Your task to perform on an android device: Open calendar and show me the fourth week of next month Image 0: 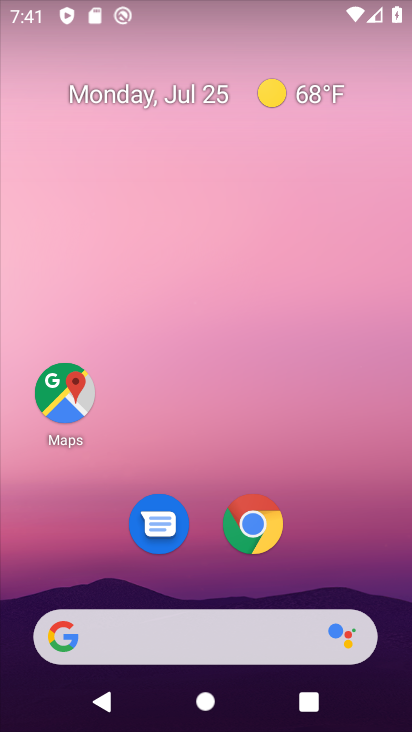
Step 0: drag from (314, 563) to (279, 27)
Your task to perform on an android device: Open calendar and show me the fourth week of next month Image 1: 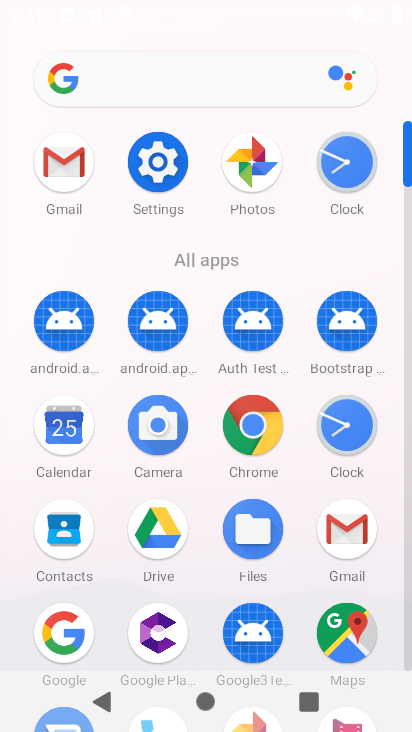
Step 1: click (71, 428)
Your task to perform on an android device: Open calendar and show me the fourth week of next month Image 2: 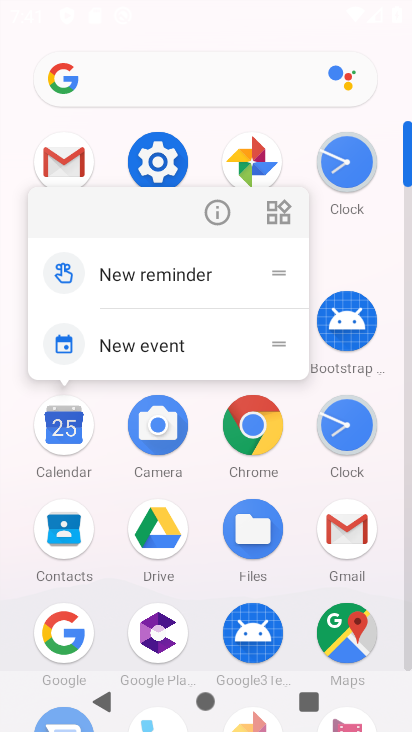
Step 2: click (71, 428)
Your task to perform on an android device: Open calendar and show me the fourth week of next month Image 3: 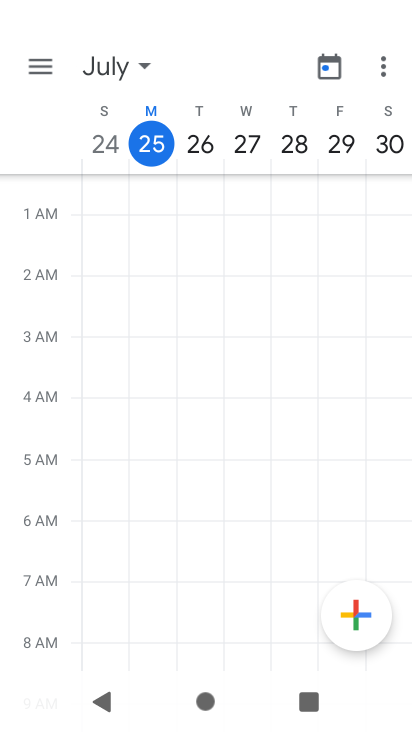
Step 3: click (34, 60)
Your task to perform on an android device: Open calendar and show me the fourth week of next month Image 4: 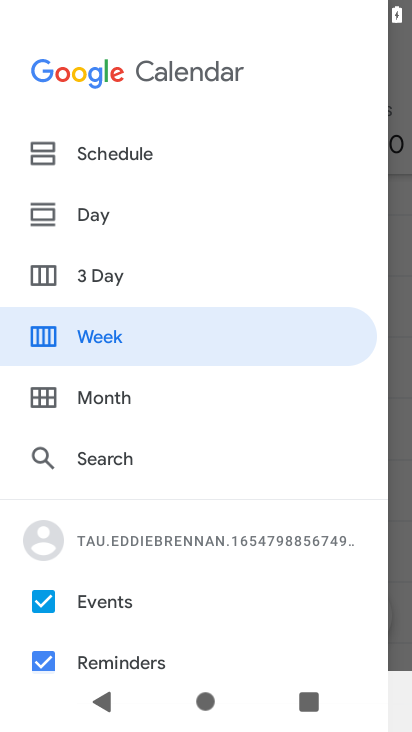
Step 4: click (42, 393)
Your task to perform on an android device: Open calendar and show me the fourth week of next month Image 5: 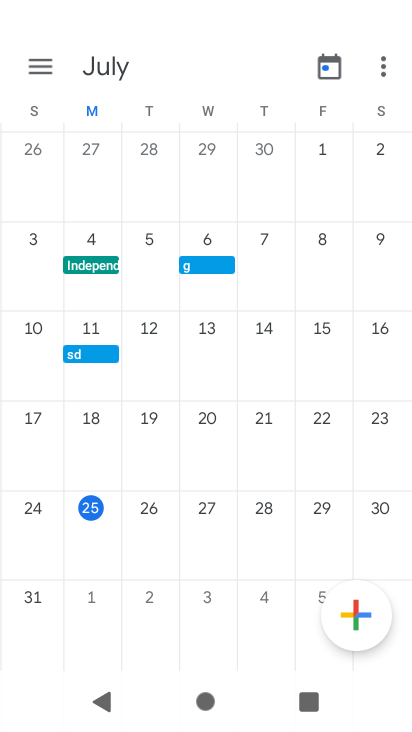
Step 5: drag from (383, 193) to (3, 244)
Your task to perform on an android device: Open calendar and show me the fourth week of next month Image 6: 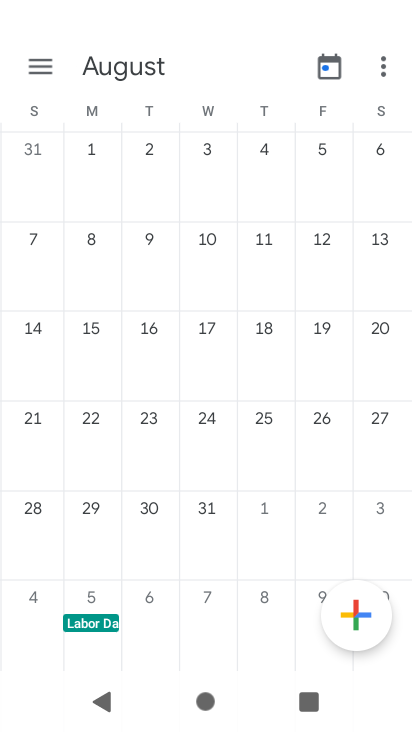
Step 6: click (37, 512)
Your task to perform on an android device: Open calendar and show me the fourth week of next month Image 7: 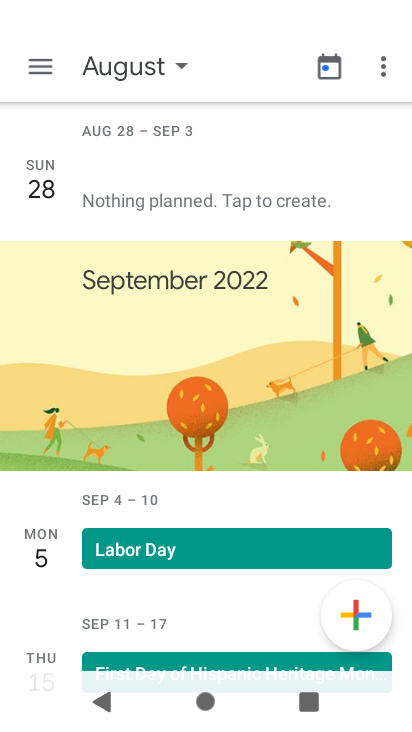
Step 7: task complete